Your task to perform on an android device: open app "Instagram" (install if not already installed) Image 0: 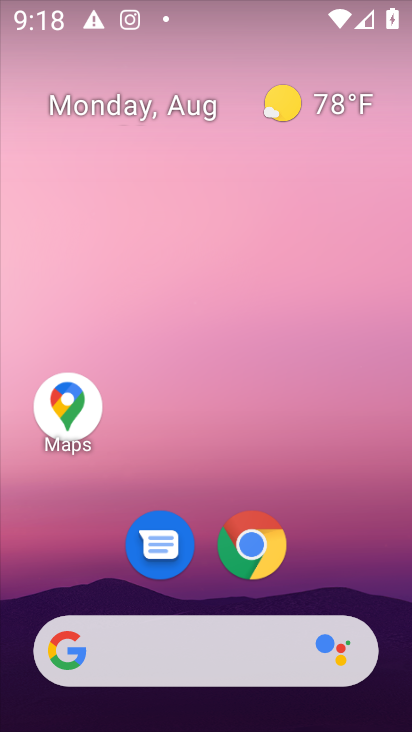
Step 0: drag from (345, 580) to (361, 67)
Your task to perform on an android device: open app "Instagram" (install if not already installed) Image 1: 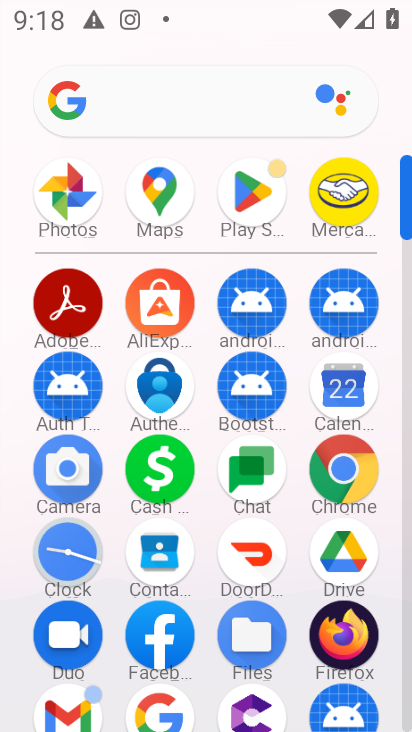
Step 1: click (246, 201)
Your task to perform on an android device: open app "Instagram" (install if not already installed) Image 2: 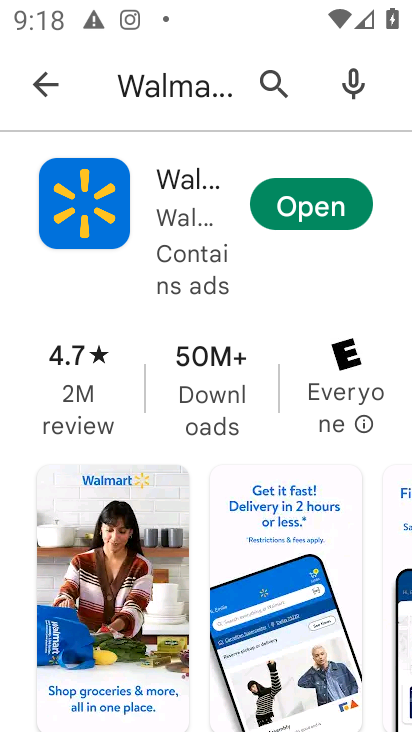
Step 2: press back button
Your task to perform on an android device: open app "Instagram" (install if not already installed) Image 3: 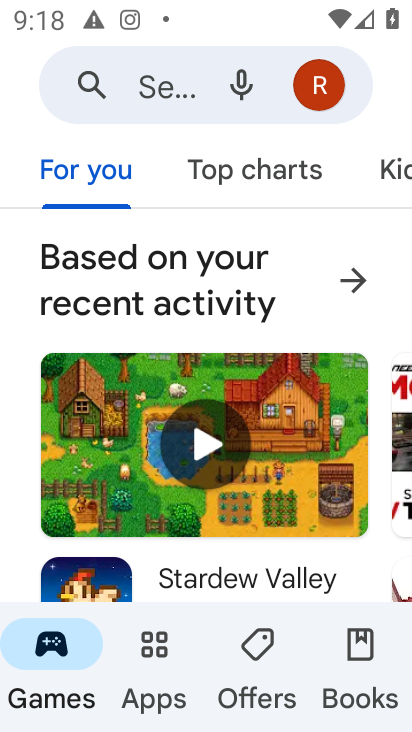
Step 3: click (158, 90)
Your task to perform on an android device: open app "Instagram" (install if not already installed) Image 4: 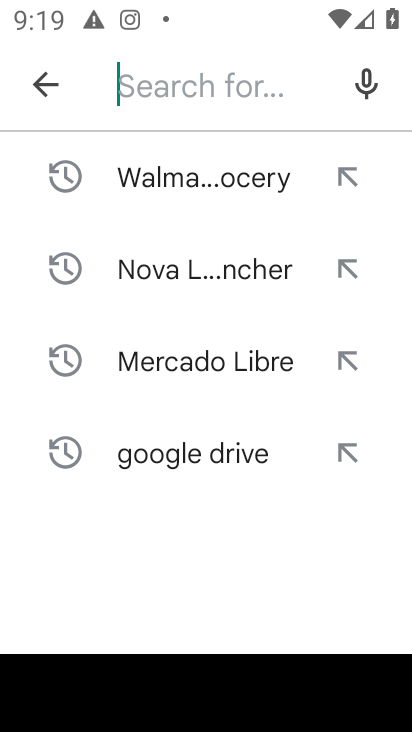
Step 4: type "Instagram"
Your task to perform on an android device: open app "Instagram" (install if not already installed) Image 5: 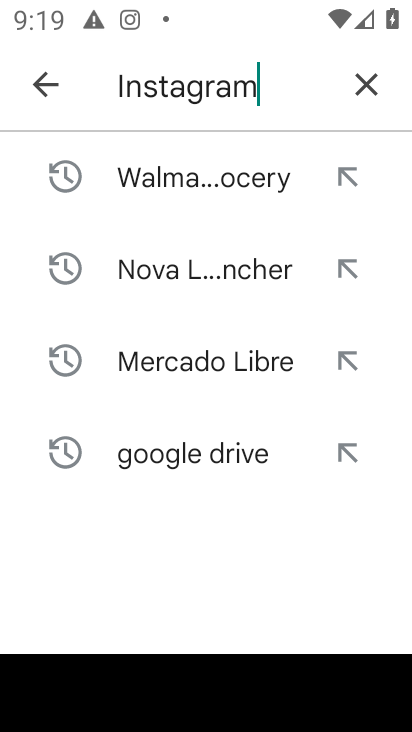
Step 5: press enter
Your task to perform on an android device: open app "Instagram" (install if not already installed) Image 6: 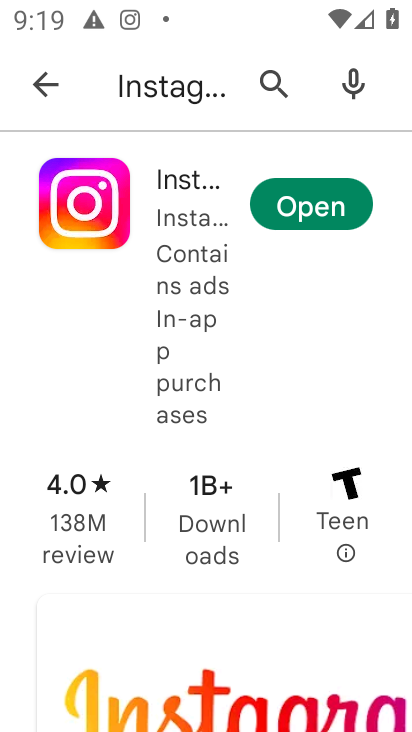
Step 6: click (320, 206)
Your task to perform on an android device: open app "Instagram" (install if not already installed) Image 7: 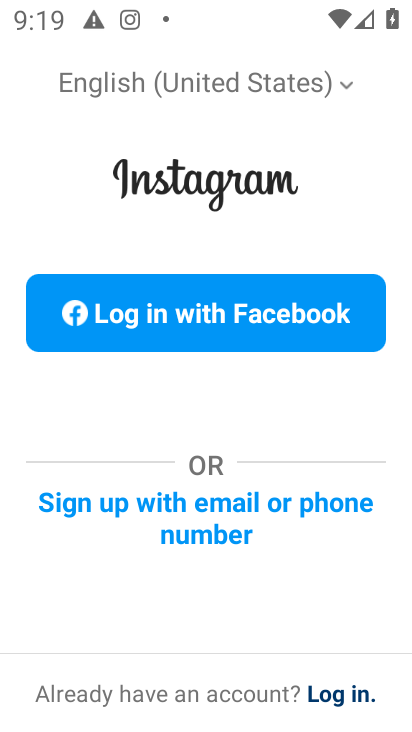
Step 7: task complete